Your task to perform on an android device: check data usage Image 0: 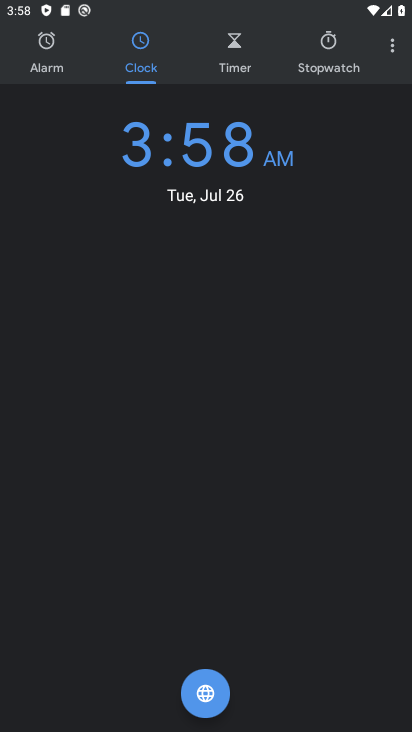
Step 0: press back button
Your task to perform on an android device: check data usage Image 1: 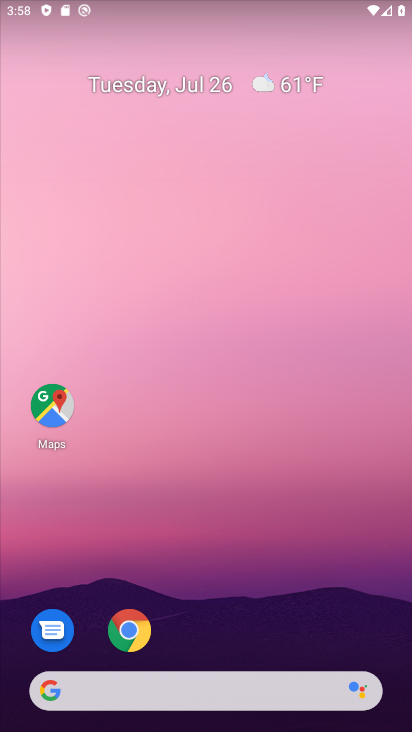
Step 1: drag from (242, 500) to (177, 15)
Your task to perform on an android device: check data usage Image 2: 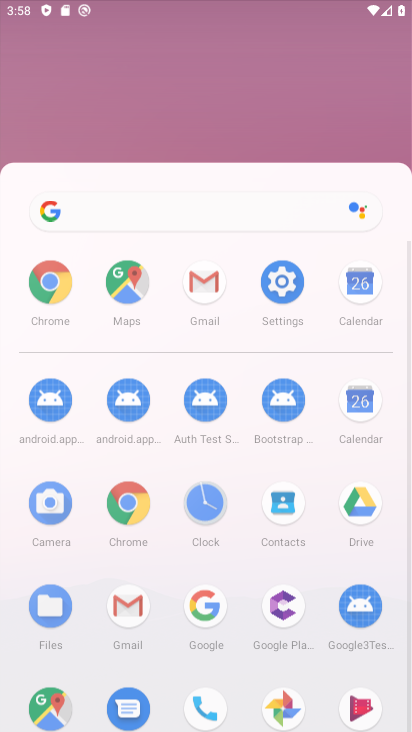
Step 2: drag from (248, 561) to (282, 20)
Your task to perform on an android device: check data usage Image 3: 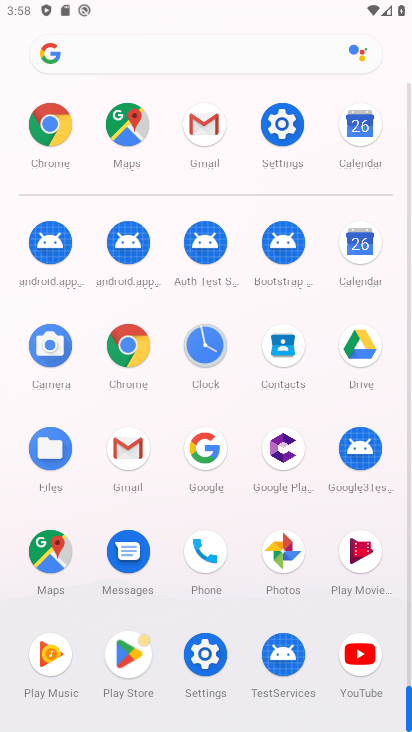
Step 3: click (281, 115)
Your task to perform on an android device: check data usage Image 4: 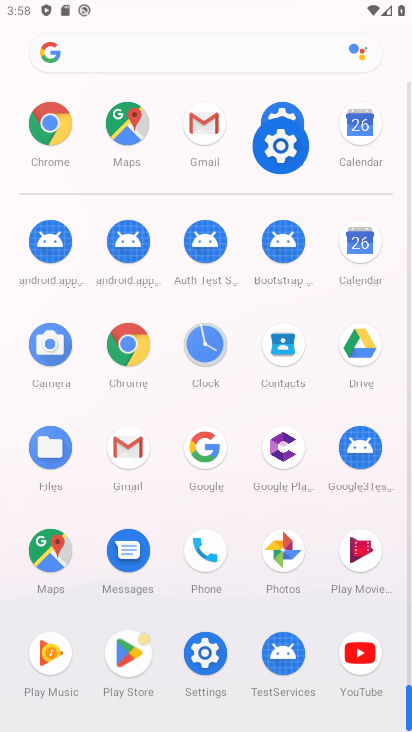
Step 4: click (284, 119)
Your task to perform on an android device: check data usage Image 5: 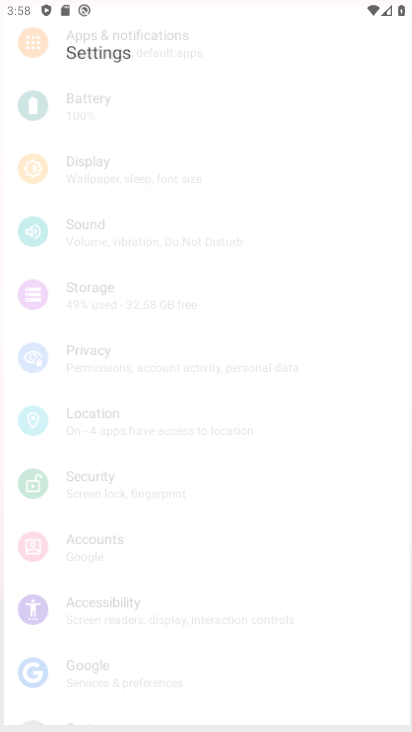
Step 5: click (285, 120)
Your task to perform on an android device: check data usage Image 6: 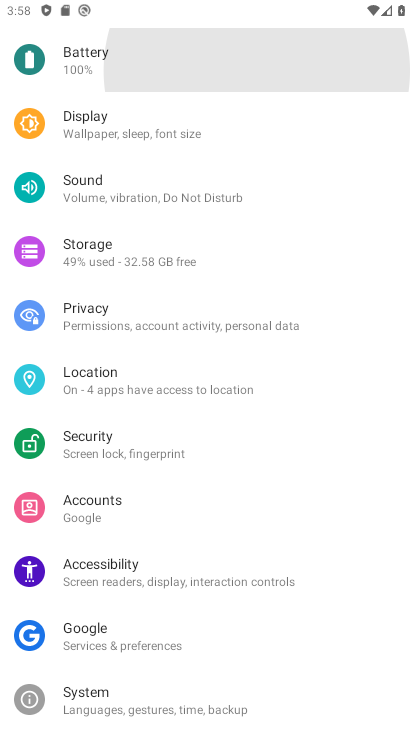
Step 6: click (285, 121)
Your task to perform on an android device: check data usage Image 7: 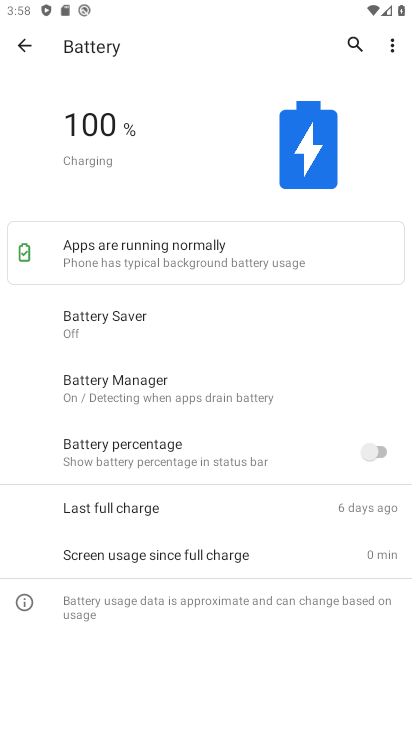
Step 7: task complete